Your task to perform on an android device: Open settings on Google Maps Image 0: 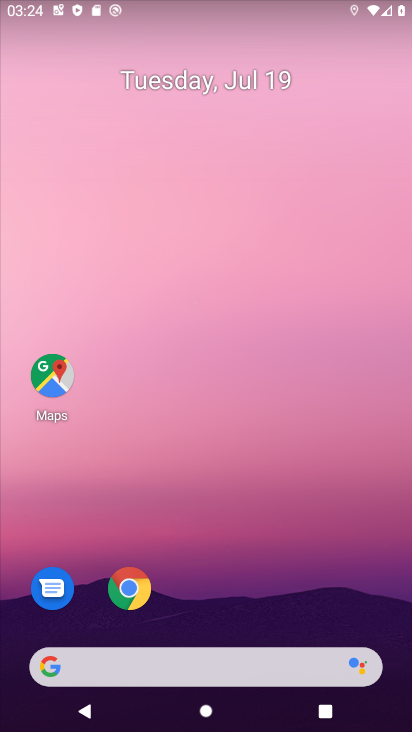
Step 0: click (49, 377)
Your task to perform on an android device: Open settings on Google Maps Image 1: 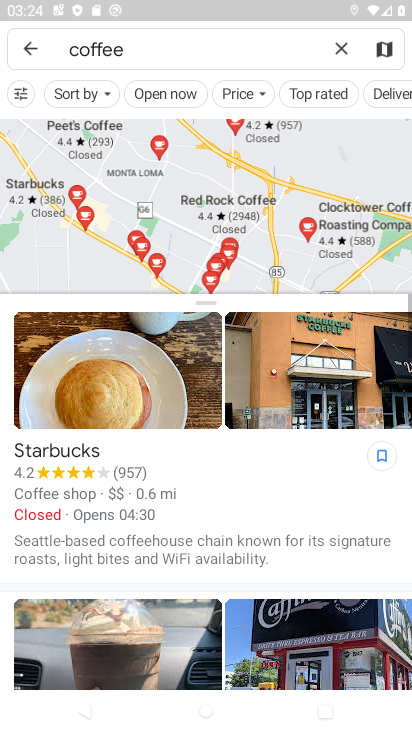
Step 1: click (28, 37)
Your task to perform on an android device: Open settings on Google Maps Image 2: 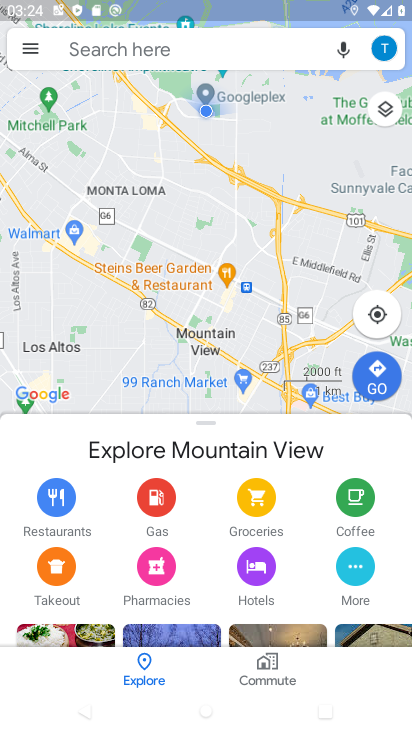
Step 2: click (25, 44)
Your task to perform on an android device: Open settings on Google Maps Image 3: 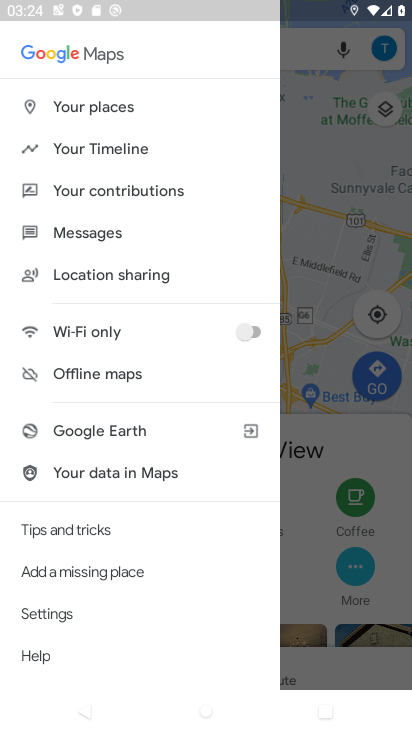
Step 3: click (60, 612)
Your task to perform on an android device: Open settings on Google Maps Image 4: 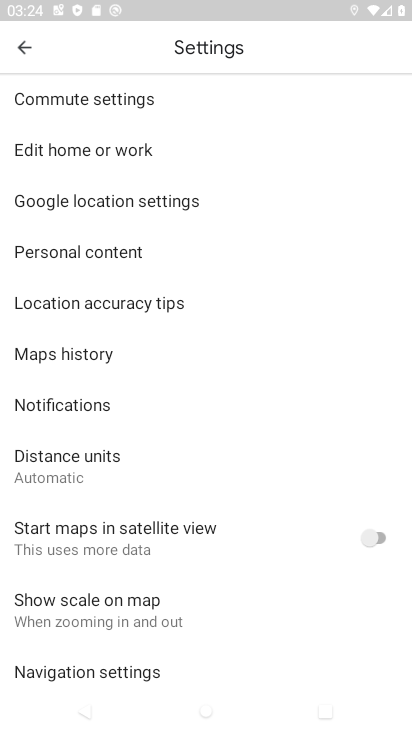
Step 4: task complete